Your task to perform on an android device: turn on wifi Image 0: 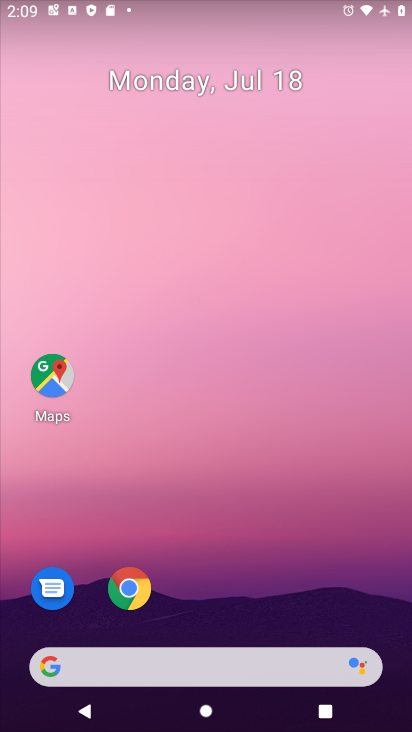
Step 0: drag from (244, 641) to (242, 309)
Your task to perform on an android device: turn on wifi Image 1: 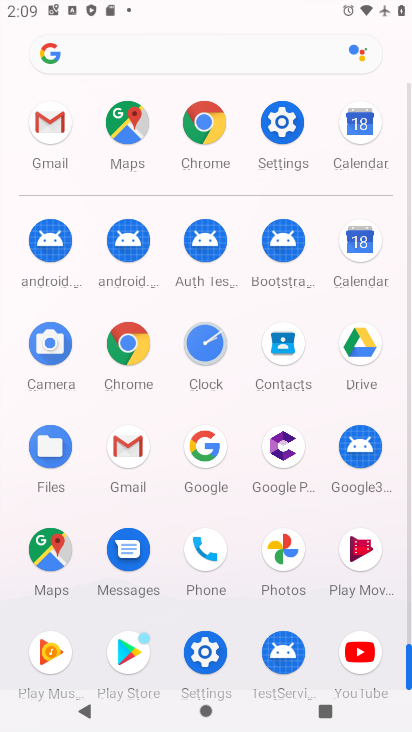
Step 1: click (286, 153)
Your task to perform on an android device: turn on wifi Image 2: 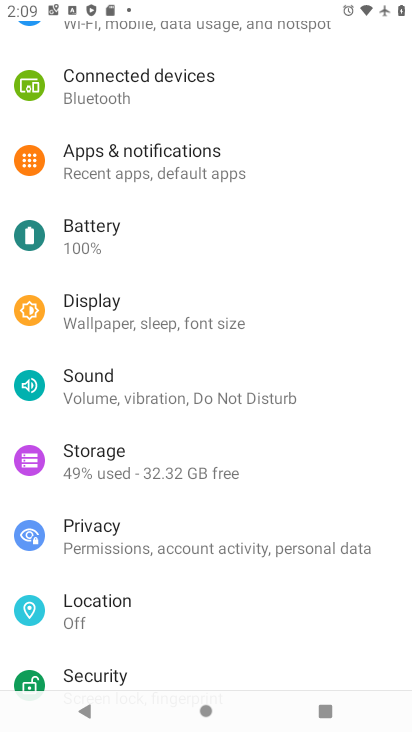
Step 2: drag from (257, 128) to (225, 377)
Your task to perform on an android device: turn on wifi Image 3: 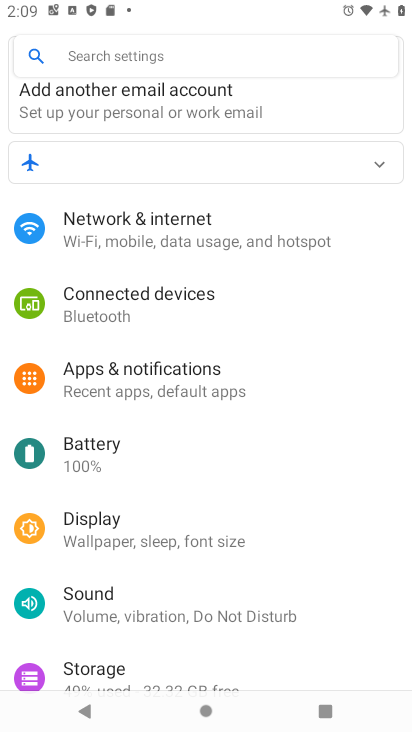
Step 3: click (268, 223)
Your task to perform on an android device: turn on wifi Image 4: 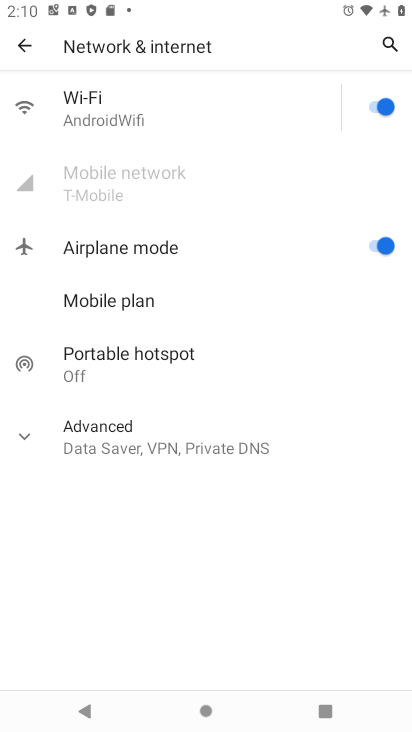
Step 4: task complete